Your task to perform on an android device: Open Youtube and go to "Your channel" Image 0: 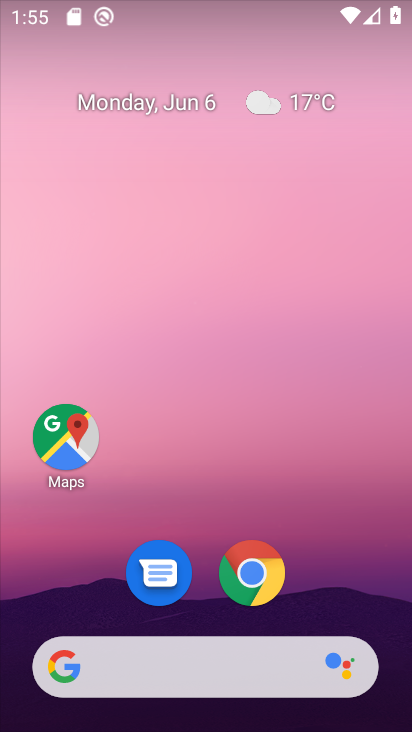
Step 0: drag from (388, 644) to (264, 23)
Your task to perform on an android device: Open Youtube and go to "Your channel" Image 1: 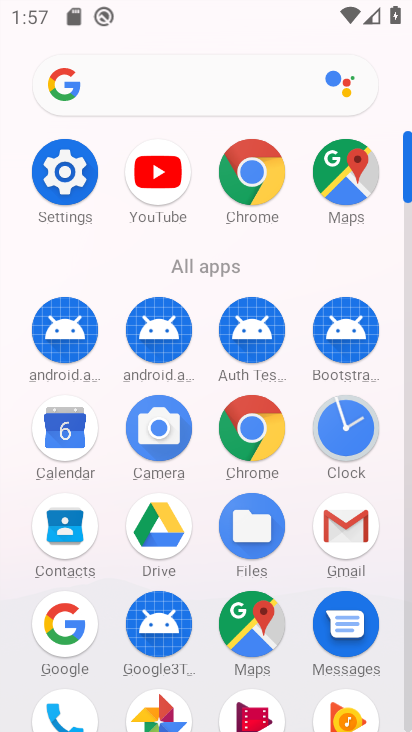
Step 1: click (137, 194)
Your task to perform on an android device: Open Youtube and go to "Your channel" Image 2: 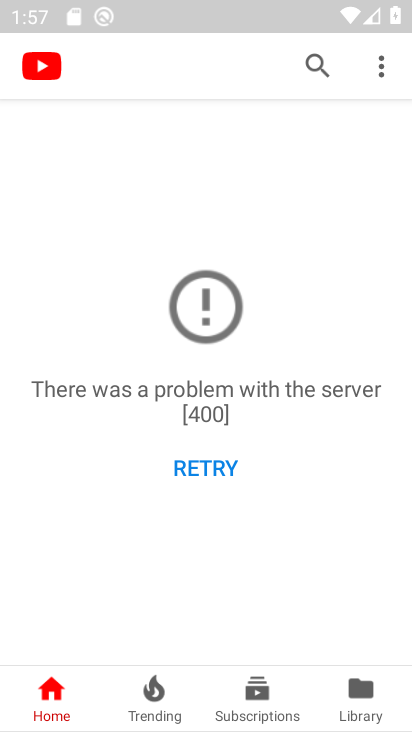
Step 2: click (221, 444)
Your task to perform on an android device: Open Youtube and go to "Your channel" Image 3: 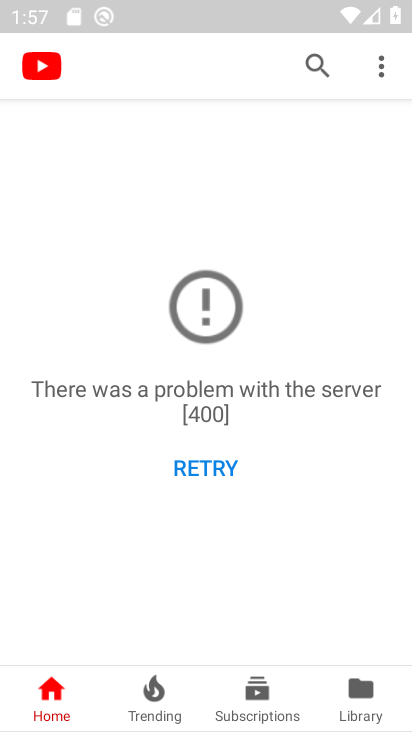
Step 3: click (206, 472)
Your task to perform on an android device: Open Youtube and go to "Your channel" Image 4: 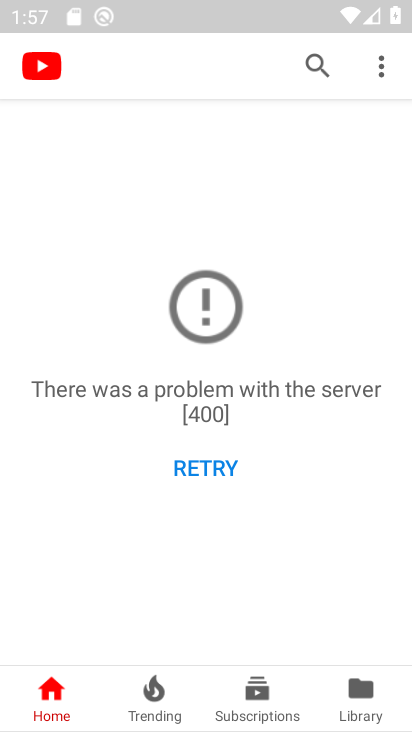
Step 4: click (206, 472)
Your task to perform on an android device: Open Youtube and go to "Your channel" Image 5: 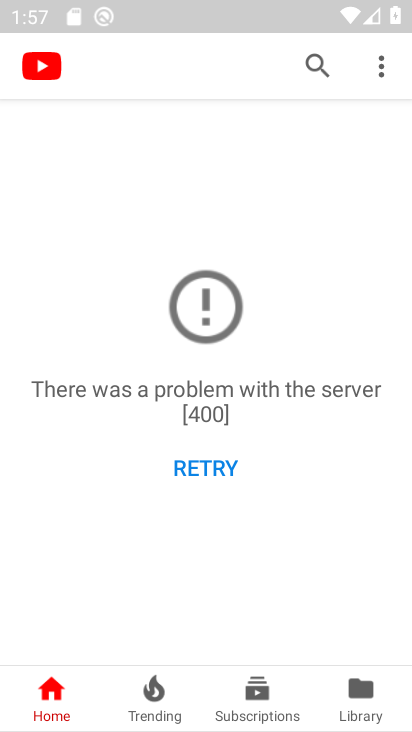
Step 5: task complete